Your task to perform on an android device: delete the emails in spam in the gmail app Image 0: 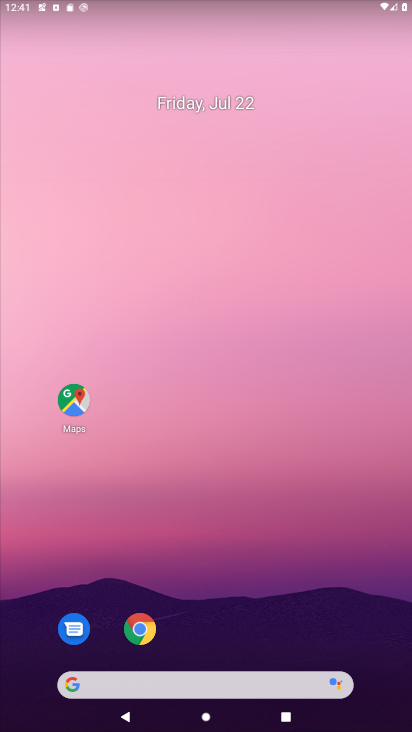
Step 0: drag from (214, 627) to (229, 213)
Your task to perform on an android device: delete the emails in spam in the gmail app Image 1: 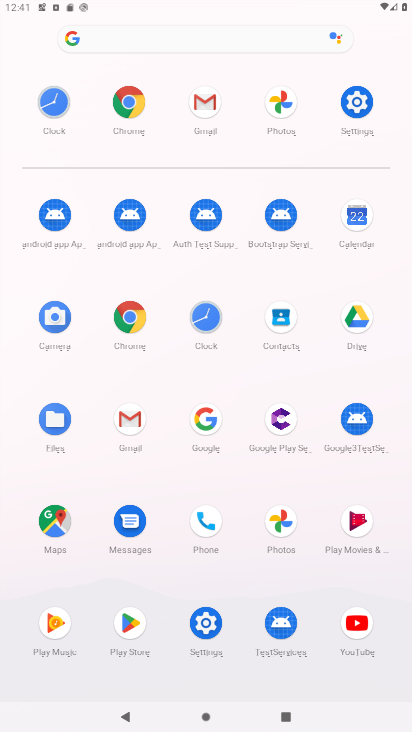
Step 1: click (133, 426)
Your task to perform on an android device: delete the emails in spam in the gmail app Image 2: 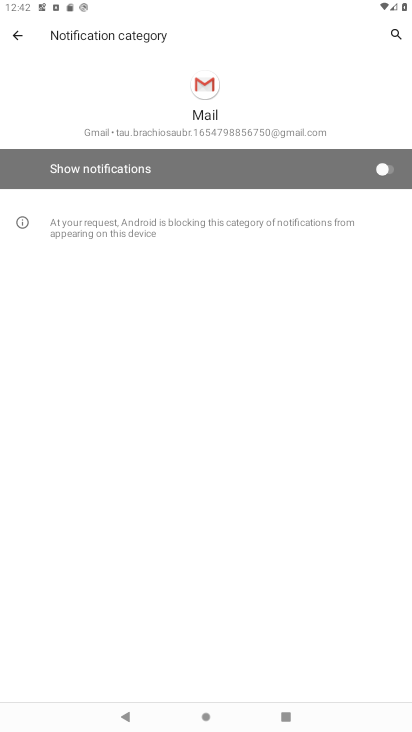
Step 2: press back button
Your task to perform on an android device: delete the emails in spam in the gmail app Image 3: 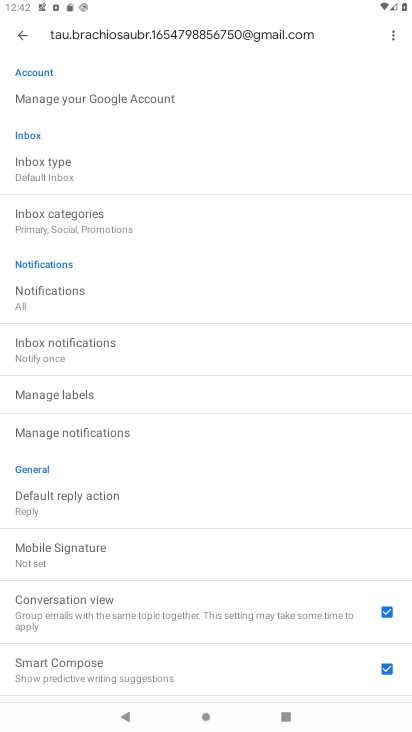
Step 3: press back button
Your task to perform on an android device: delete the emails in spam in the gmail app Image 4: 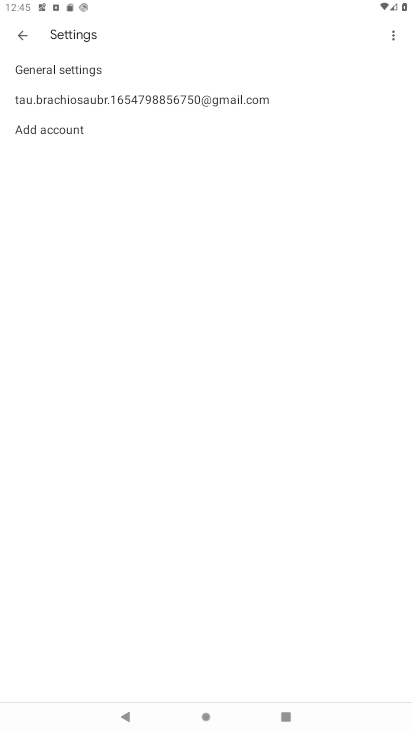
Step 4: press back button
Your task to perform on an android device: delete the emails in spam in the gmail app Image 5: 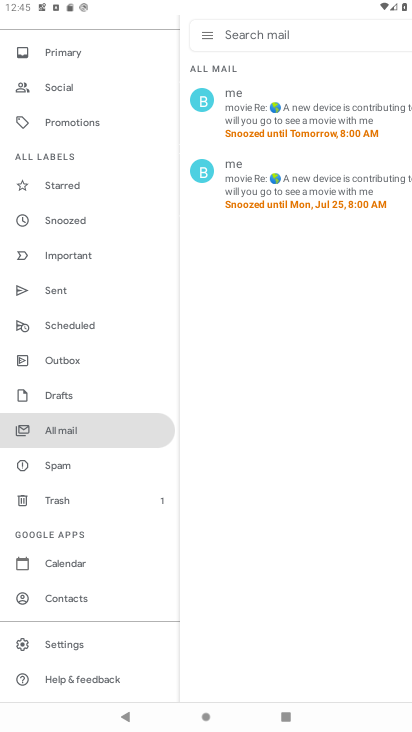
Step 5: click (88, 462)
Your task to perform on an android device: delete the emails in spam in the gmail app Image 6: 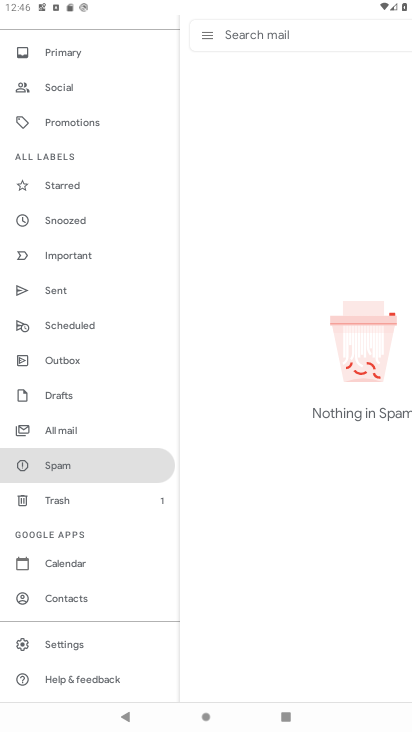
Step 6: task complete